Your task to perform on an android device: uninstall "YouTube Kids" Image 0: 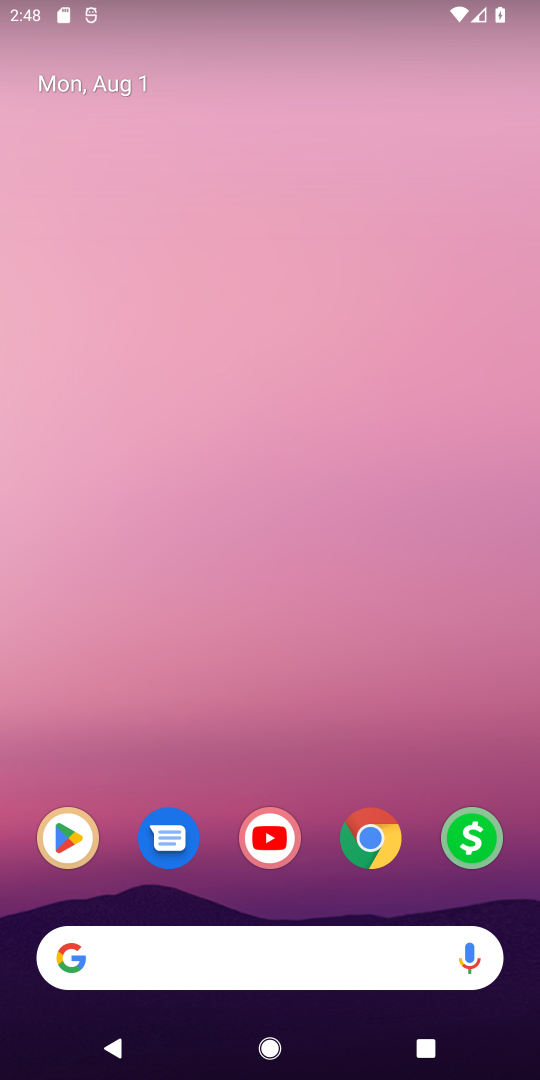
Step 0: click (75, 832)
Your task to perform on an android device: uninstall "YouTube Kids" Image 1: 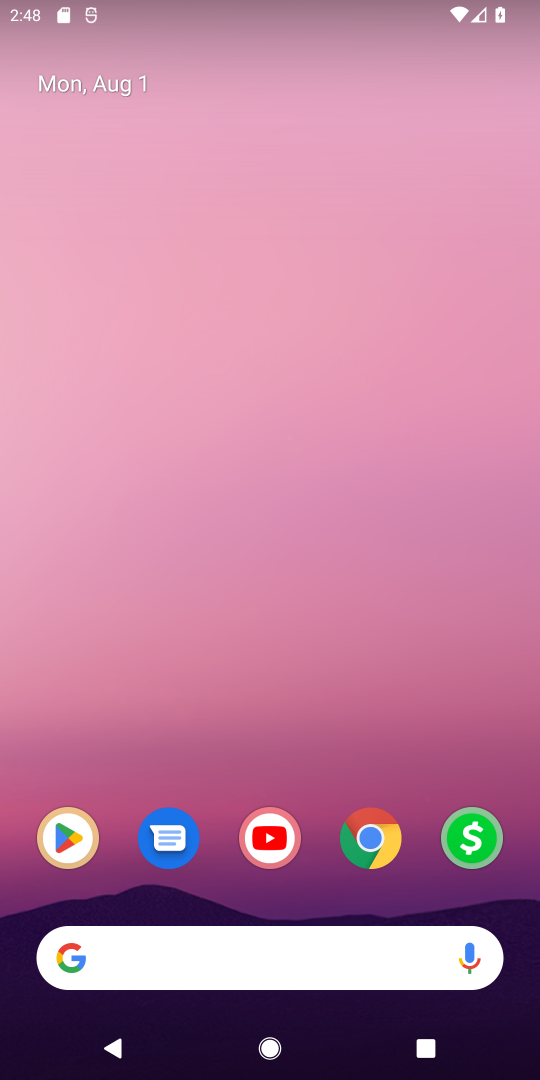
Step 1: click (75, 832)
Your task to perform on an android device: uninstall "YouTube Kids" Image 2: 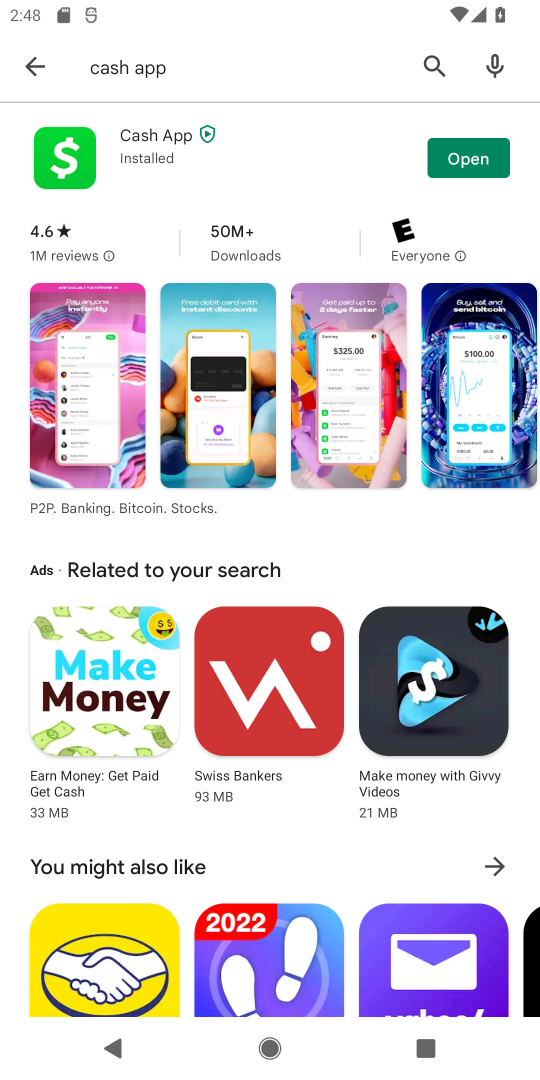
Step 2: click (440, 65)
Your task to perform on an android device: uninstall "YouTube Kids" Image 3: 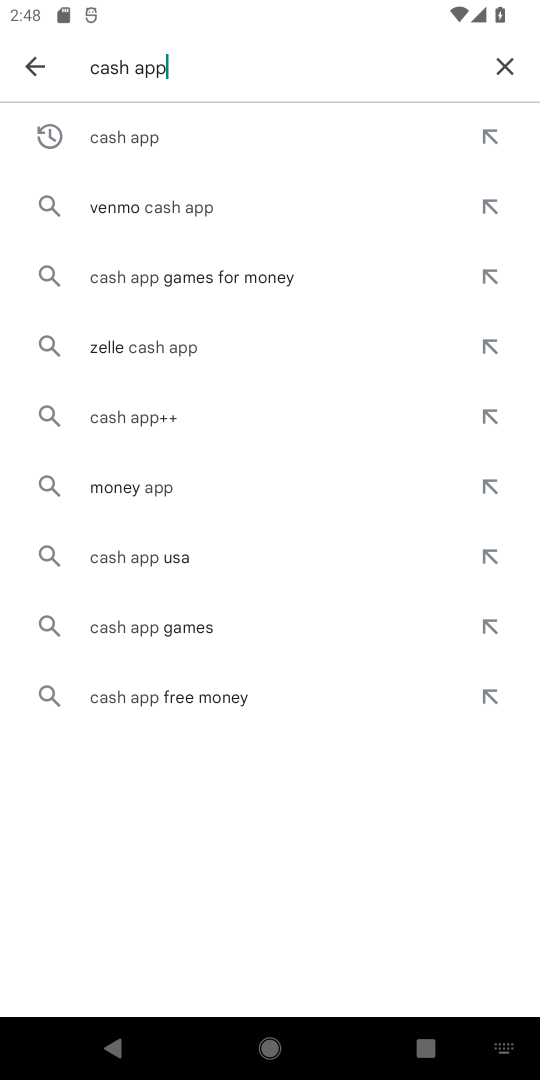
Step 3: click (497, 56)
Your task to perform on an android device: uninstall "YouTube Kids" Image 4: 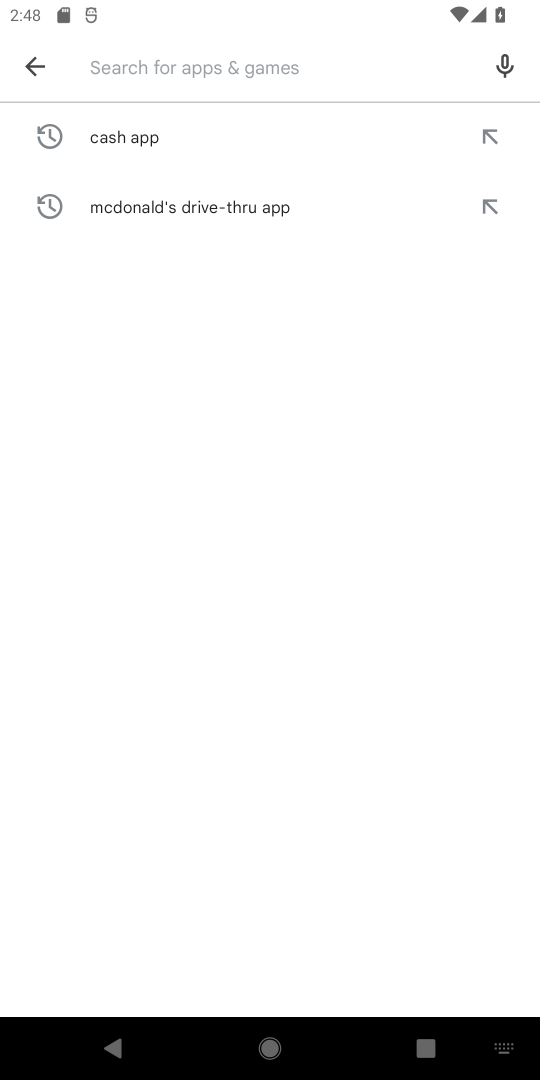
Step 4: type "YouTube Kids"
Your task to perform on an android device: uninstall "YouTube Kids" Image 5: 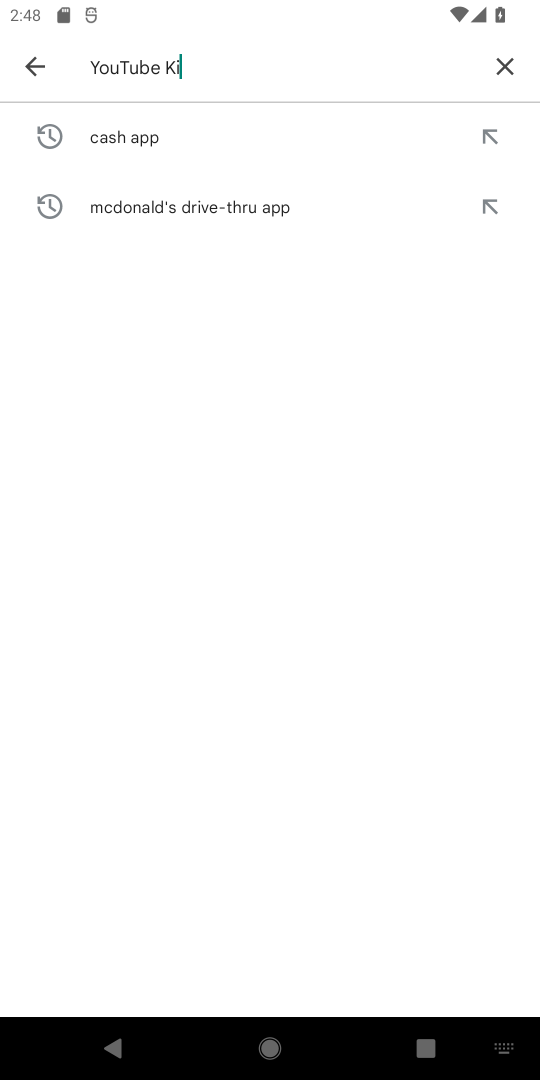
Step 5: type ""
Your task to perform on an android device: uninstall "YouTube Kids" Image 6: 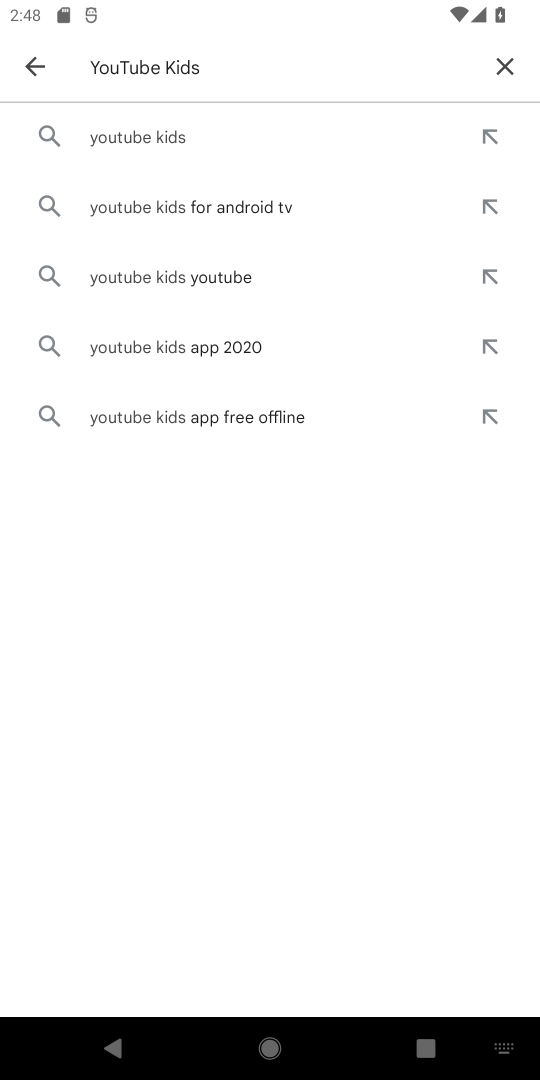
Step 6: click (238, 126)
Your task to perform on an android device: uninstall "YouTube Kids" Image 7: 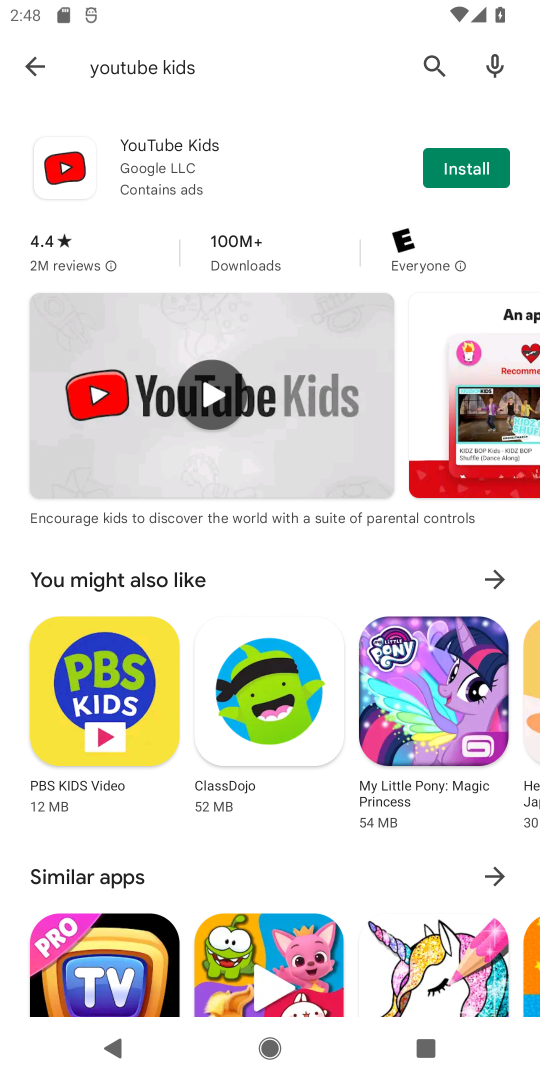
Step 7: task complete